Your task to perform on an android device: empty trash in google photos Image 0: 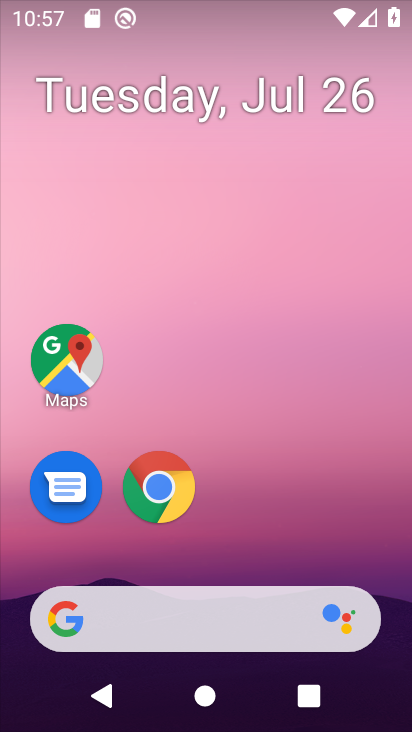
Step 0: drag from (192, 409) to (236, 14)
Your task to perform on an android device: empty trash in google photos Image 1: 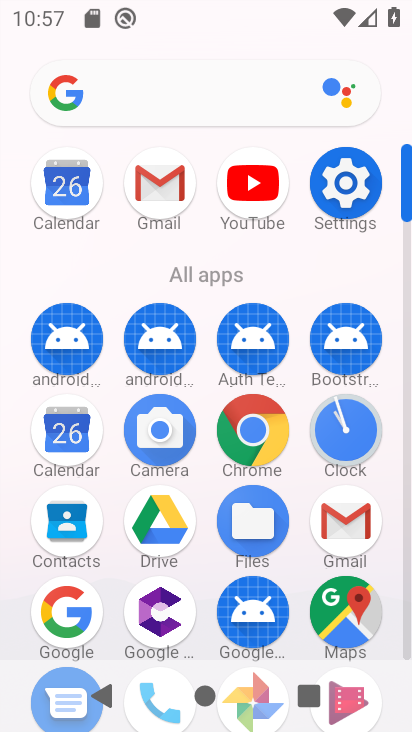
Step 1: drag from (187, 584) to (258, 121)
Your task to perform on an android device: empty trash in google photos Image 2: 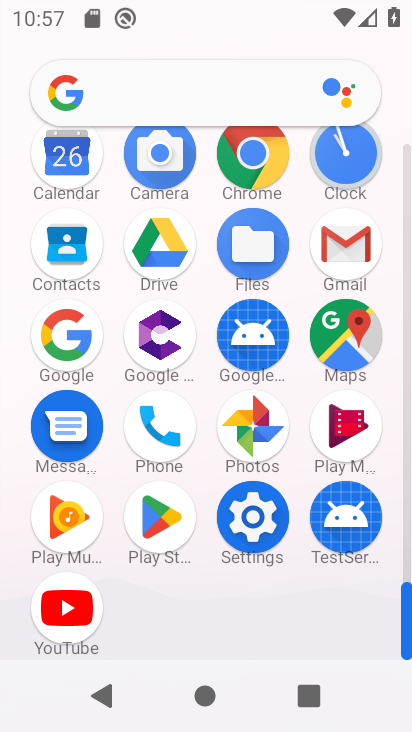
Step 2: click (258, 418)
Your task to perform on an android device: empty trash in google photos Image 3: 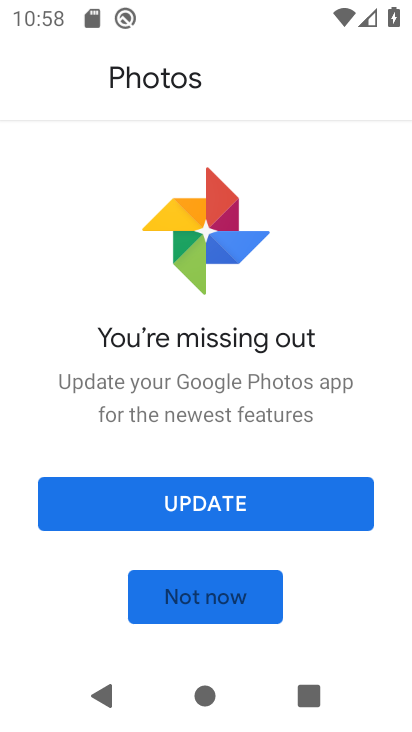
Step 3: click (193, 601)
Your task to perform on an android device: empty trash in google photos Image 4: 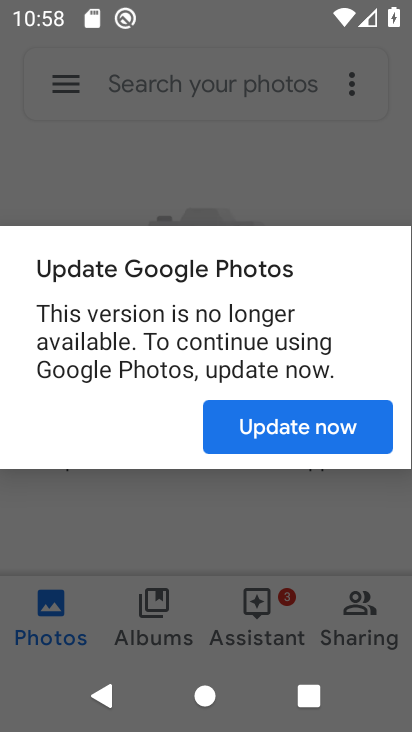
Step 4: click (262, 414)
Your task to perform on an android device: empty trash in google photos Image 5: 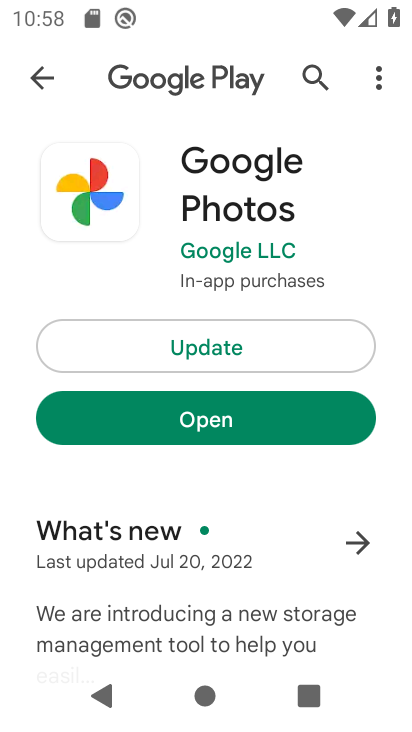
Step 5: click (236, 428)
Your task to perform on an android device: empty trash in google photos Image 6: 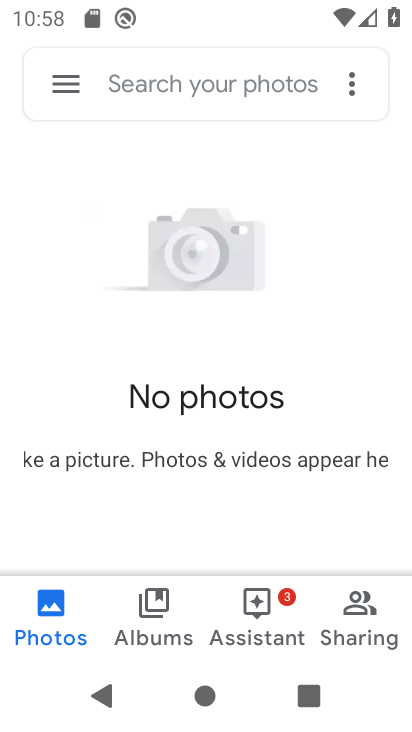
Step 6: click (56, 78)
Your task to perform on an android device: empty trash in google photos Image 7: 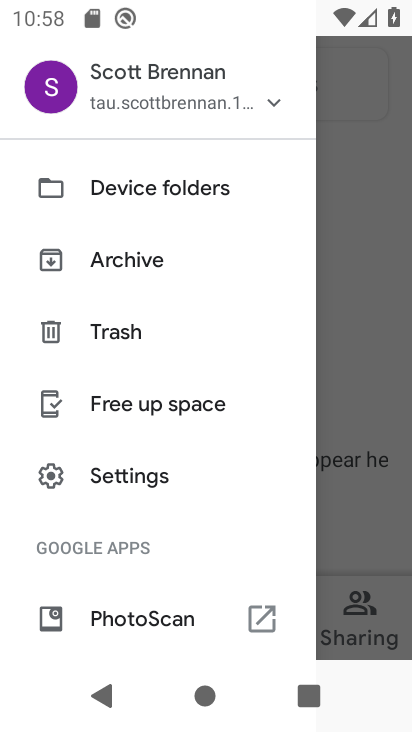
Step 7: click (104, 337)
Your task to perform on an android device: empty trash in google photos Image 8: 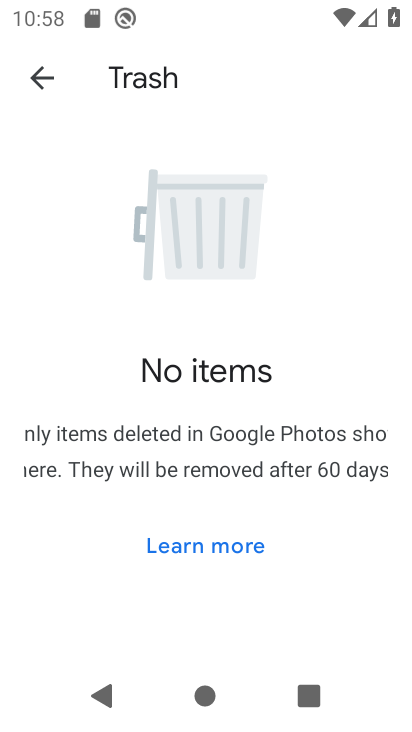
Step 8: task complete